Your task to perform on an android device: Open calendar and show me the fourth week of next month Image 0: 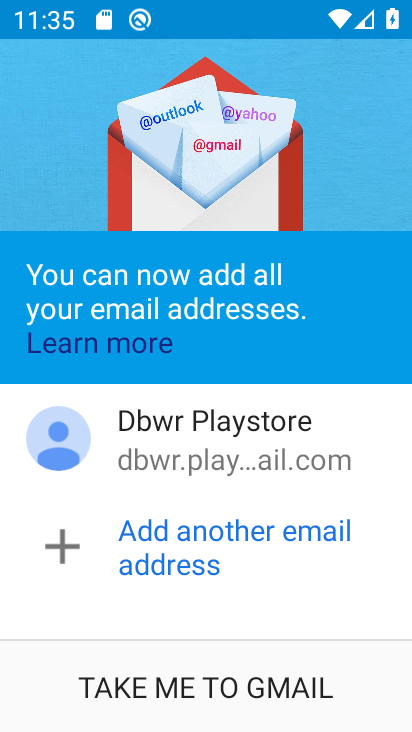
Step 0: click (254, 684)
Your task to perform on an android device: Open calendar and show me the fourth week of next month Image 1: 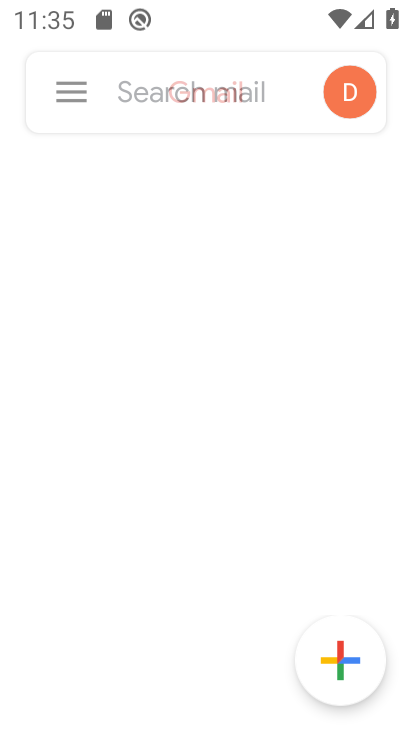
Step 1: press home button
Your task to perform on an android device: Open calendar and show me the fourth week of next month Image 2: 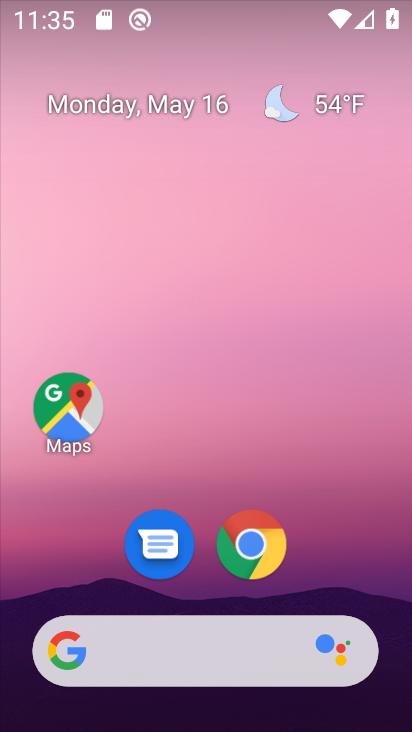
Step 2: drag from (362, 402) to (362, 265)
Your task to perform on an android device: Open calendar and show me the fourth week of next month Image 3: 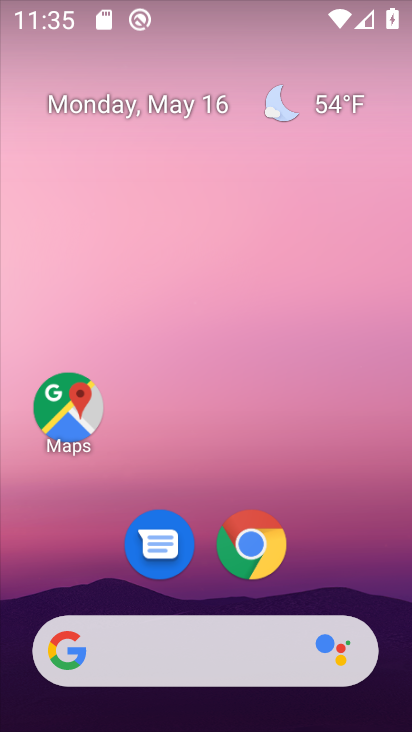
Step 3: drag from (393, 679) to (373, 366)
Your task to perform on an android device: Open calendar and show me the fourth week of next month Image 4: 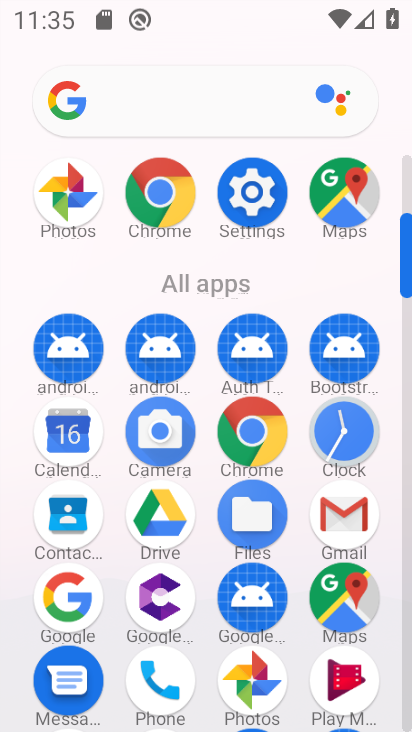
Step 4: click (59, 434)
Your task to perform on an android device: Open calendar and show me the fourth week of next month Image 5: 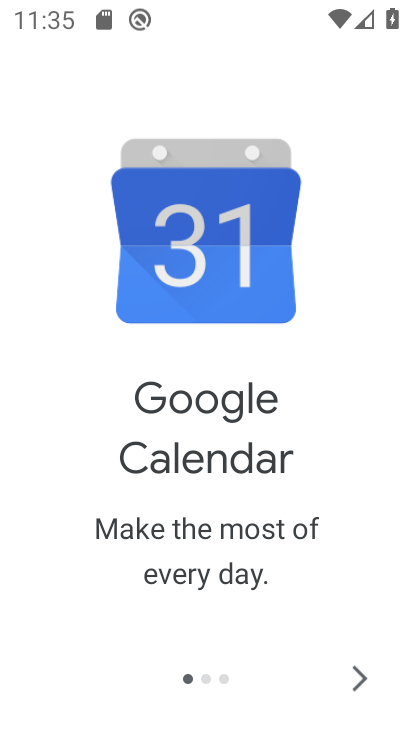
Step 5: click (360, 684)
Your task to perform on an android device: Open calendar and show me the fourth week of next month Image 6: 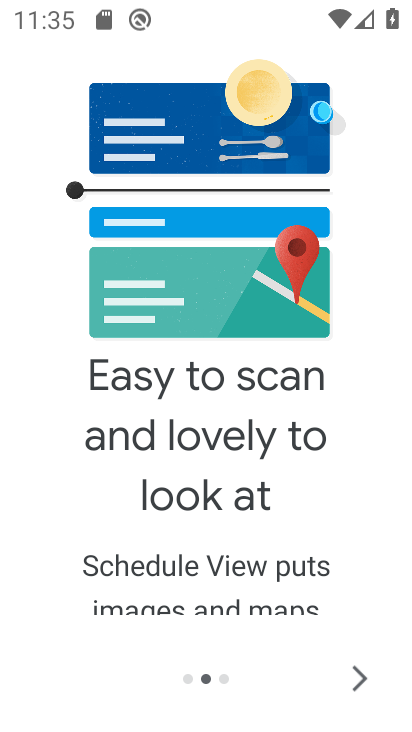
Step 6: click (360, 684)
Your task to perform on an android device: Open calendar and show me the fourth week of next month Image 7: 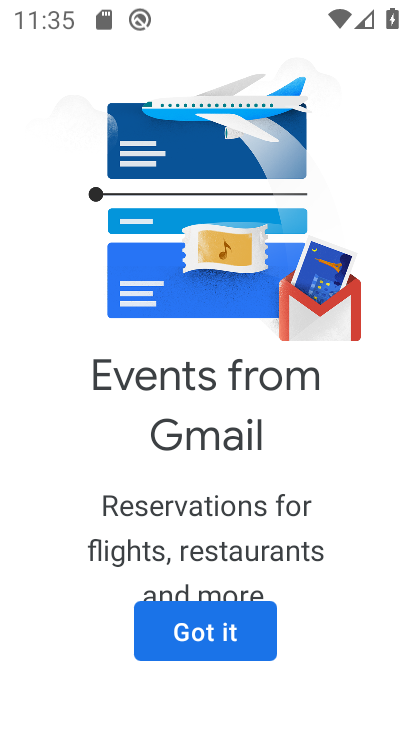
Step 7: click (239, 632)
Your task to perform on an android device: Open calendar and show me the fourth week of next month Image 8: 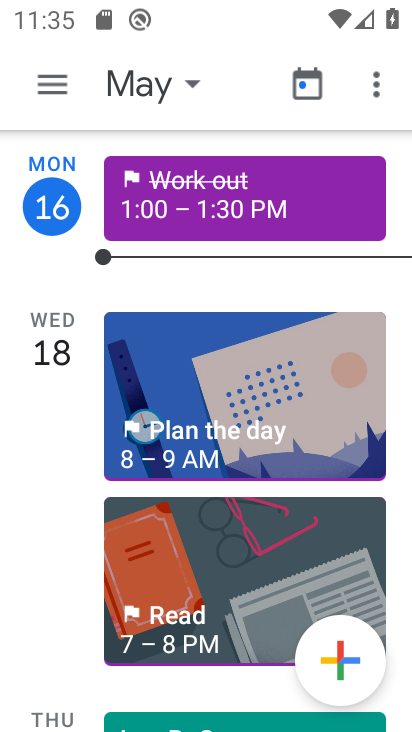
Step 8: click (55, 88)
Your task to perform on an android device: Open calendar and show me the fourth week of next month Image 9: 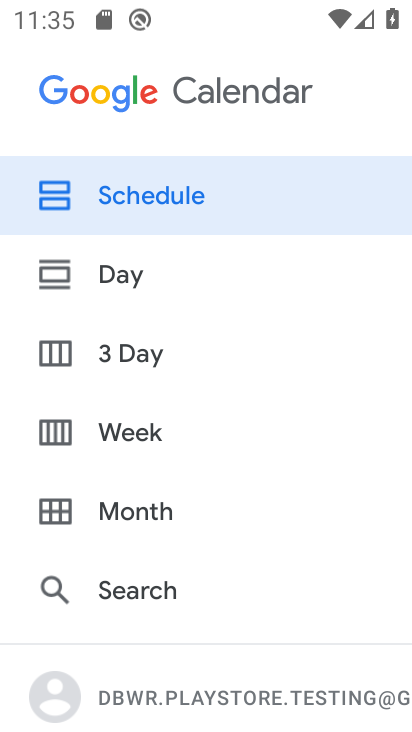
Step 9: press back button
Your task to perform on an android device: Open calendar and show me the fourth week of next month Image 10: 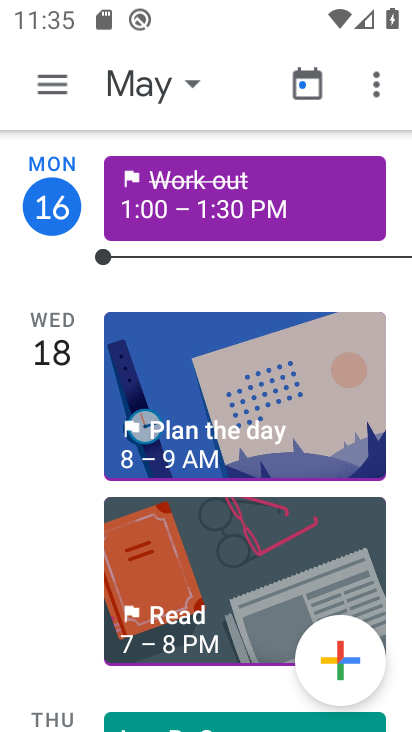
Step 10: click (200, 76)
Your task to perform on an android device: Open calendar and show me the fourth week of next month Image 11: 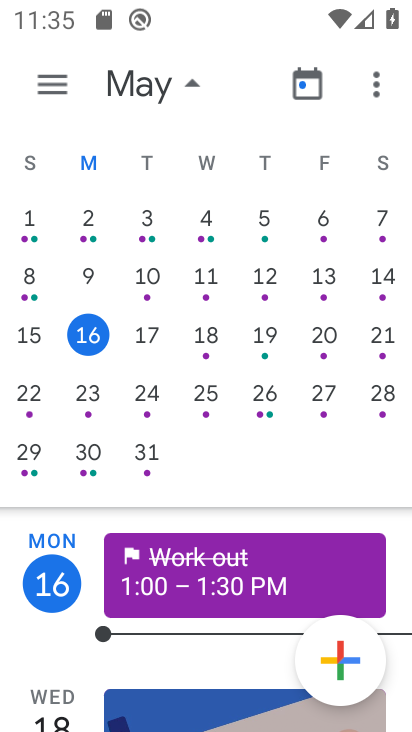
Step 11: drag from (401, 240) to (2, 311)
Your task to perform on an android device: Open calendar and show me the fourth week of next month Image 12: 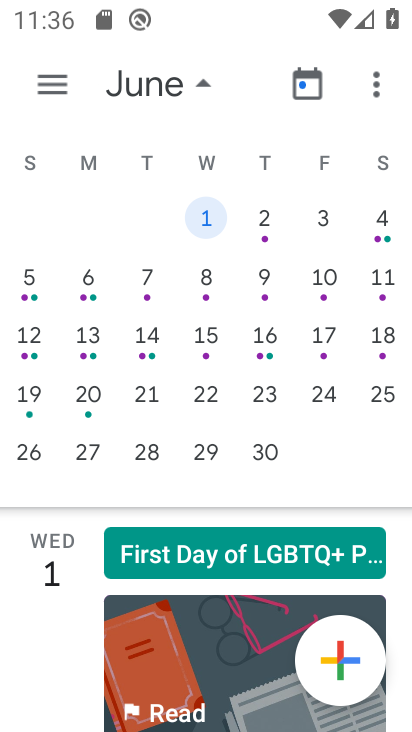
Step 12: click (257, 396)
Your task to perform on an android device: Open calendar and show me the fourth week of next month Image 13: 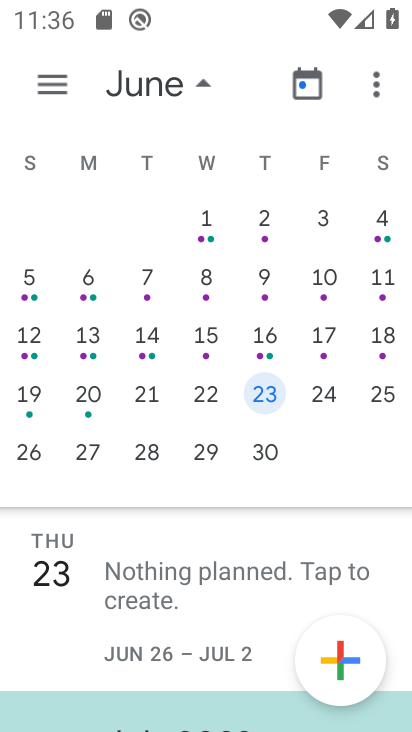
Step 13: task complete